Your task to perform on an android device: Open calendar and show me the second week of next month Image 0: 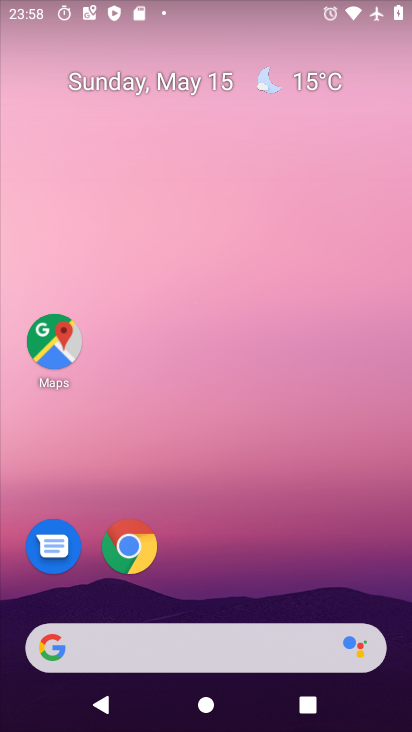
Step 0: drag from (306, 708) to (97, 76)
Your task to perform on an android device: Open calendar and show me the second week of next month Image 1: 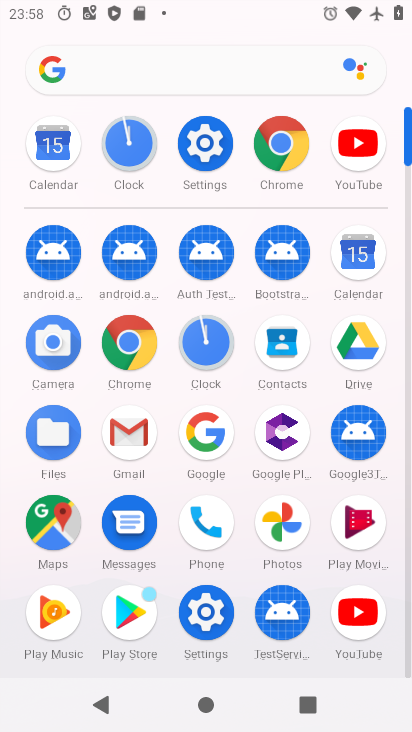
Step 1: click (355, 258)
Your task to perform on an android device: Open calendar and show me the second week of next month Image 2: 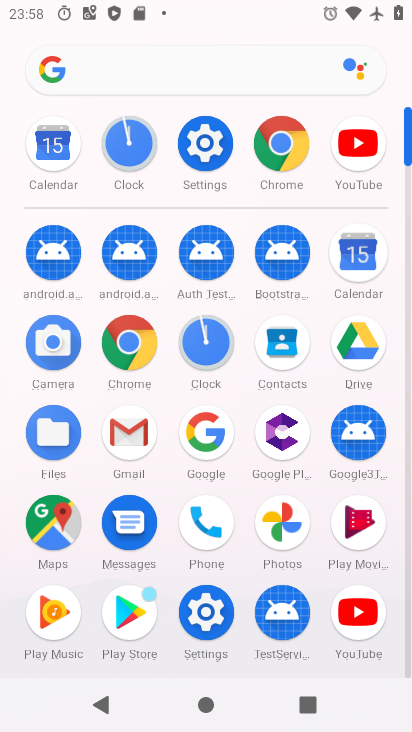
Step 2: click (355, 258)
Your task to perform on an android device: Open calendar and show me the second week of next month Image 3: 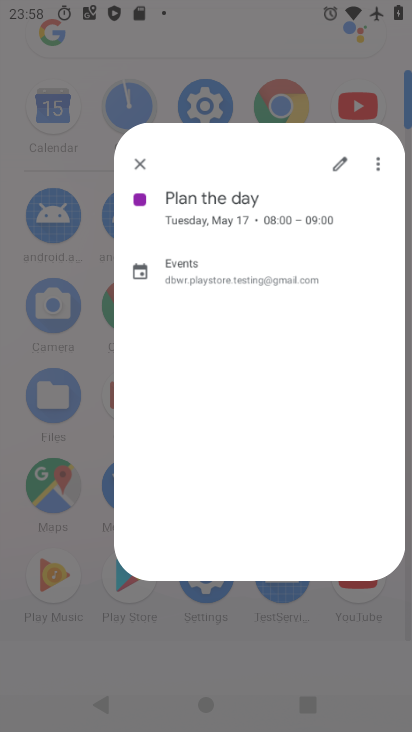
Step 3: click (355, 258)
Your task to perform on an android device: Open calendar and show me the second week of next month Image 4: 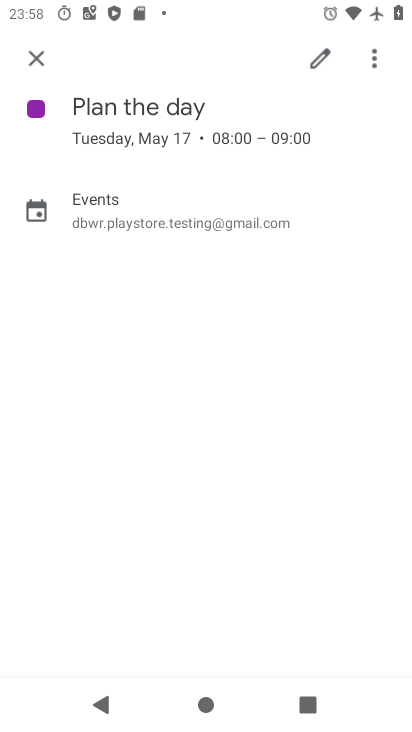
Step 4: click (358, 259)
Your task to perform on an android device: Open calendar and show me the second week of next month Image 5: 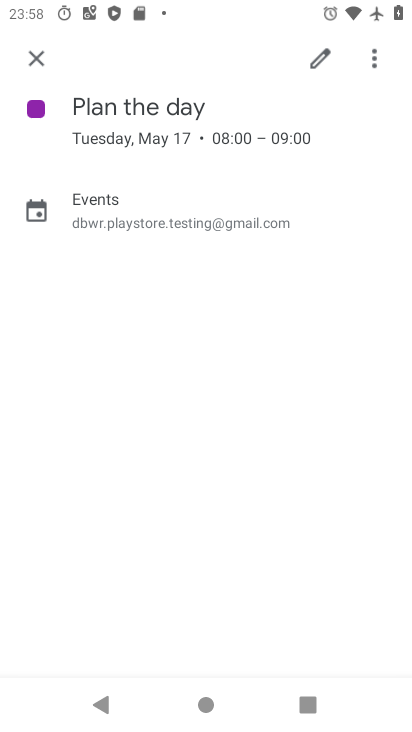
Step 5: click (33, 56)
Your task to perform on an android device: Open calendar and show me the second week of next month Image 6: 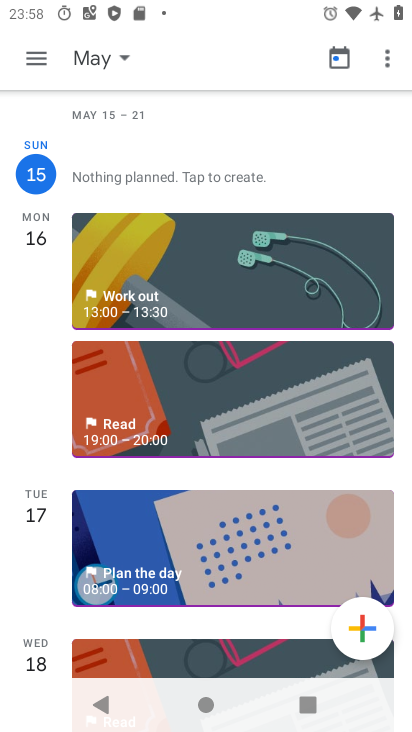
Step 6: click (123, 59)
Your task to perform on an android device: Open calendar and show me the second week of next month Image 7: 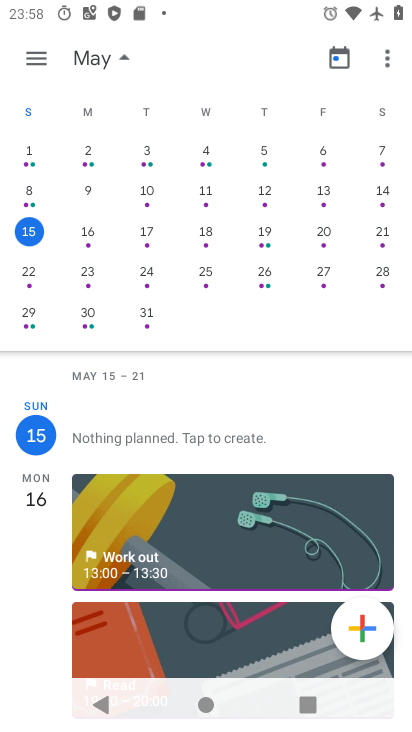
Step 7: click (144, 188)
Your task to perform on an android device: Open calendar and show me the second week of next month Image 8: 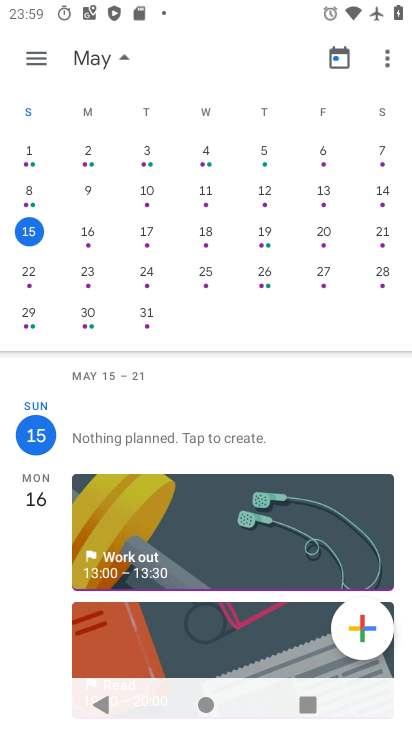
Step 8: click (146, 189)
Your task to perform on an android device: Open calendar and show me the second week of next month Image 9: 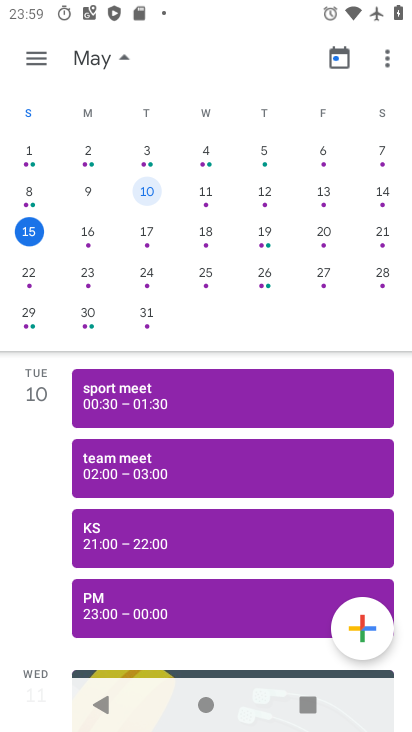
Step 9: click (148, 190)
Your task to perform on an android device: Open calendar and show me the second week of next month Image 10: 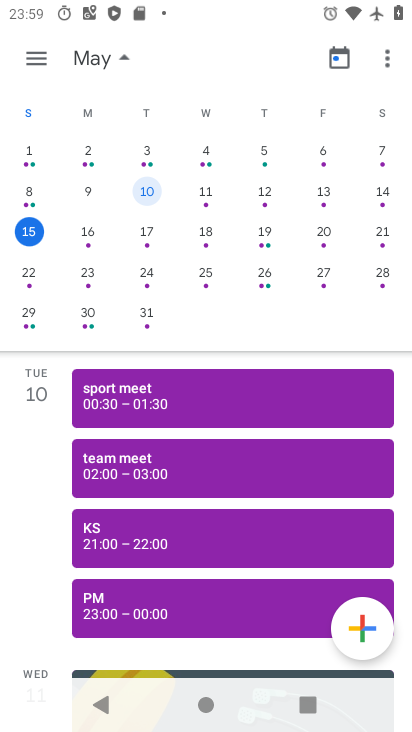
Step 10: click (148, 190)
Your task to perform on an android device: Open calendar and show me the second week of next month Image 11: 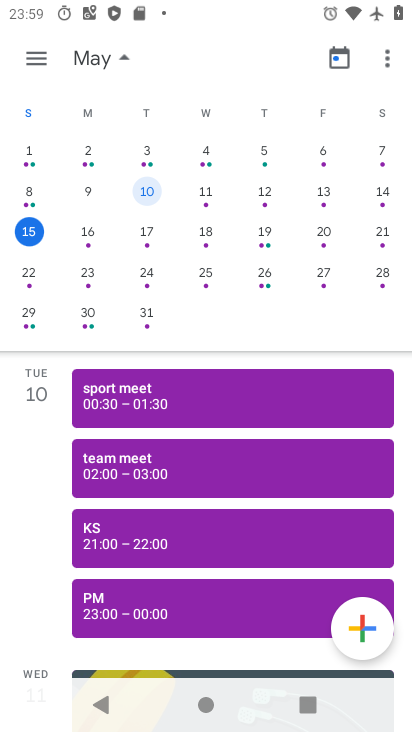
Step 11: click (148, 190)
Your task to perform on an android device: Open calendar and show me the second week of next month Image 12: 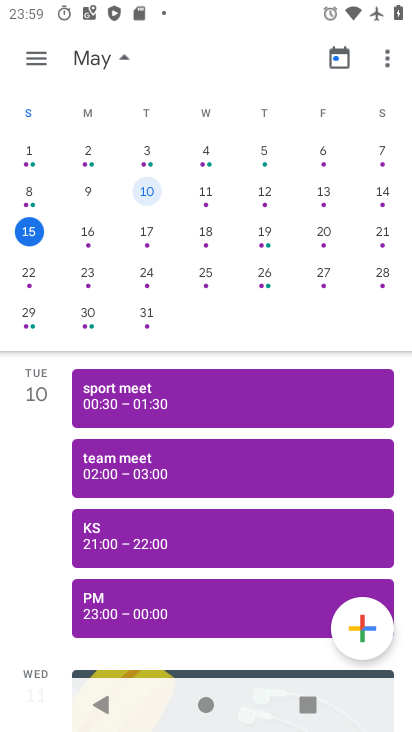
Step 12: click (123, 57)
Your task to perform on an android device: Open calendar and show me the second week of next month Image 13: 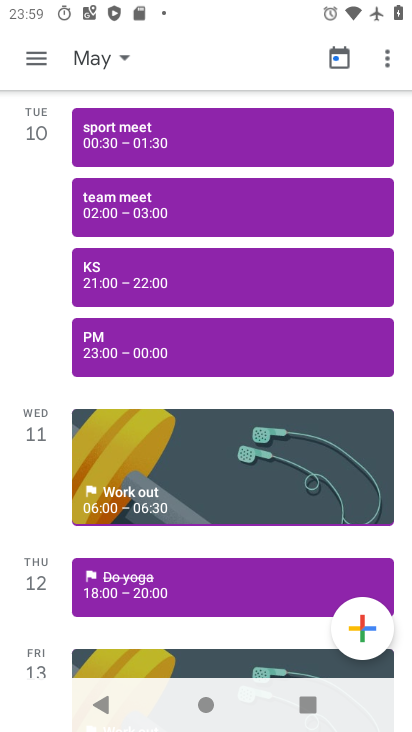
Step 13: click (175, 158)
Your task to perform on an android device: Open calendar and show me the second week of next month Image 14: 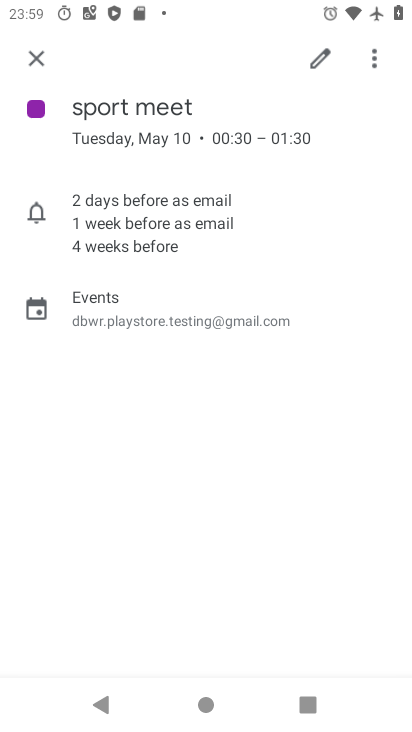
Step 14: click (31, 48)
Your task to perform on an android device: Open calendar and show me the second week of next month Image 15: 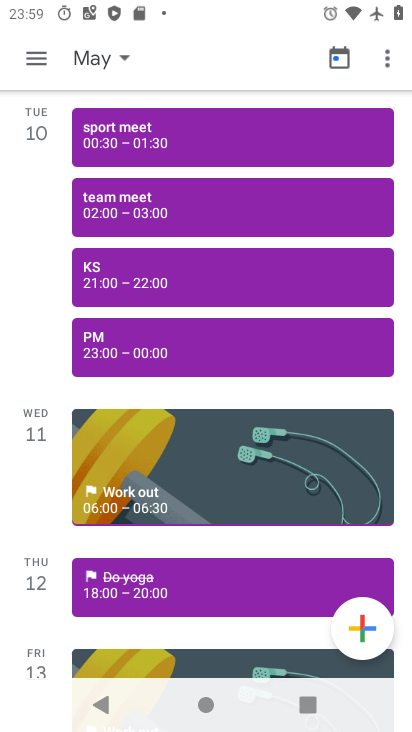
Step 15: click (122, 59)
Your task to perform on an android device: Open calendar and show me the second week of next month Image 16: 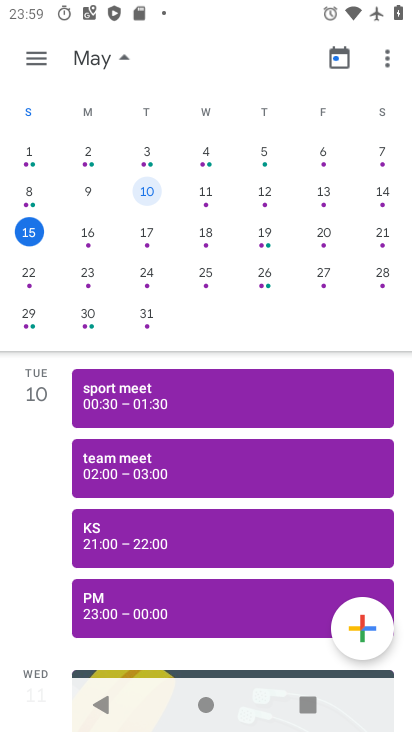
Step 16: drag from (229, 190) to (83, 214)
Your task to perform on an android device: Open calendar and show me the second week of next month Image 17: 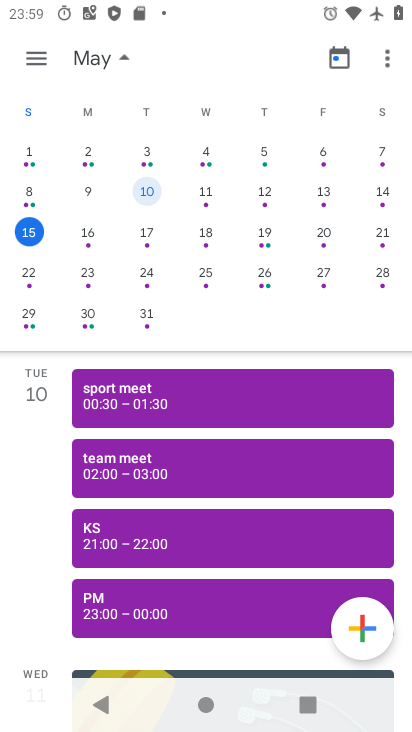
Step 17: drag from (262, 238) to (14, 226)
Your task to perform on an android device: Open calendar and show me the second week of next month Image 18: 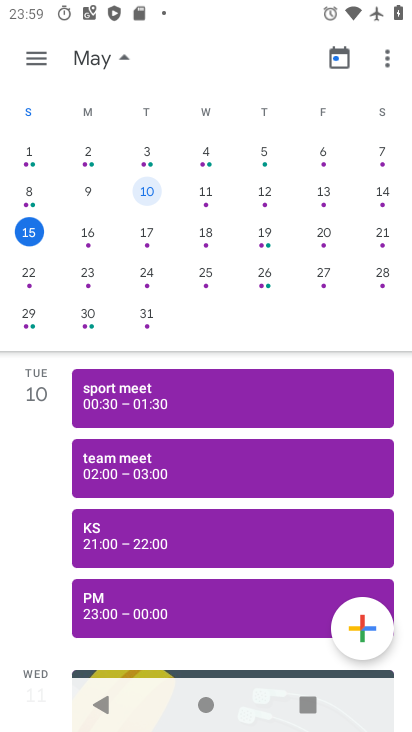
Step 18: drag from (172, 237) to (44, 303)
Your task to perform on an android device: Open calendar and show me the second week of next month Image 19: 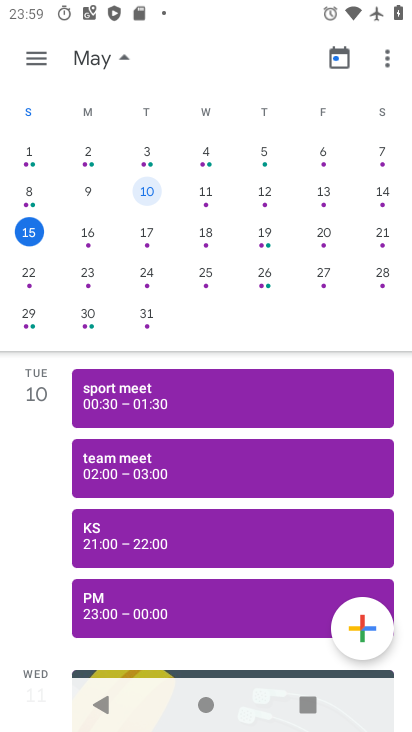
Step 19: drag from (301, 188) to (38, 241)
Your task to perform on an android device: Open calendar and show me the second week of next month Image 20: 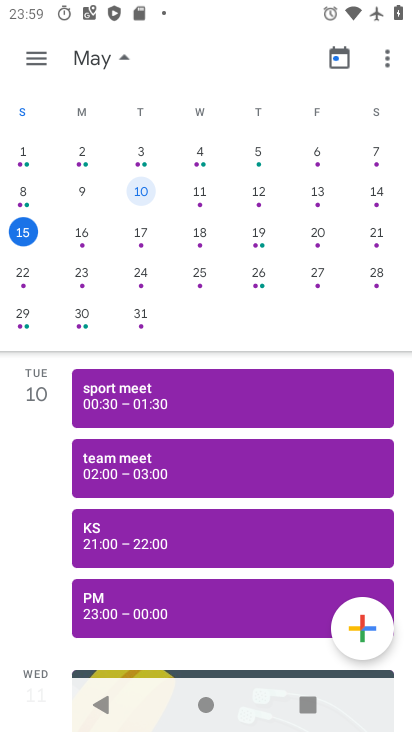
Step 20: drag from (325, 219) to (0, 283)
Your task to perform on an android device: Open calendar and show me the second week of next month Image 21: 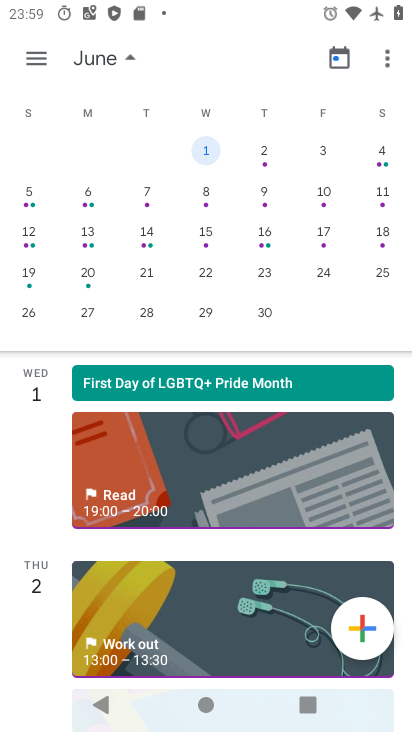
Step 21: drag from (196, 240) to (82, 260)
Your task to perform on an android device: Open calendar and show me the second week of next month Image 22: 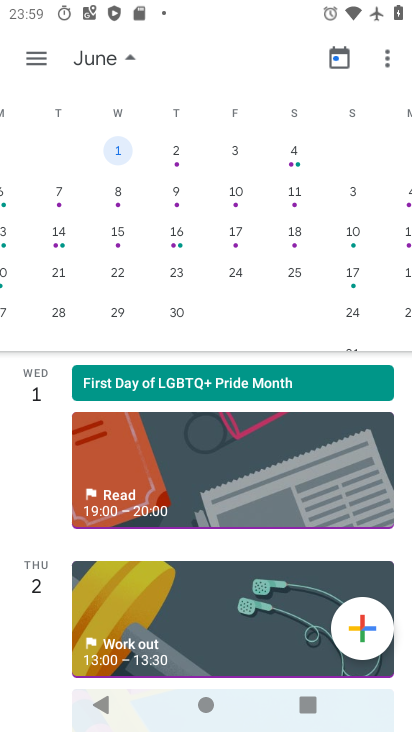
Step 22: drag from (226, 219) to (8, 257)
Your task to perform on an android device: Open calendar and show me the second week of next month Image 23: 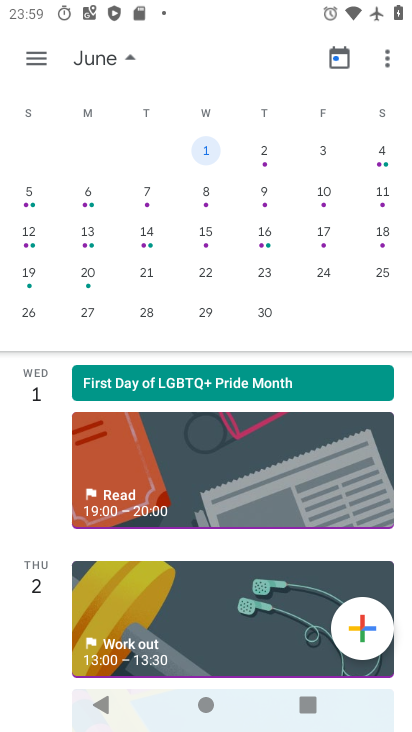
Step 23: click (203, 200)
Your task to perform on an android device: Open calendar and show me the second week of next month Image 24: 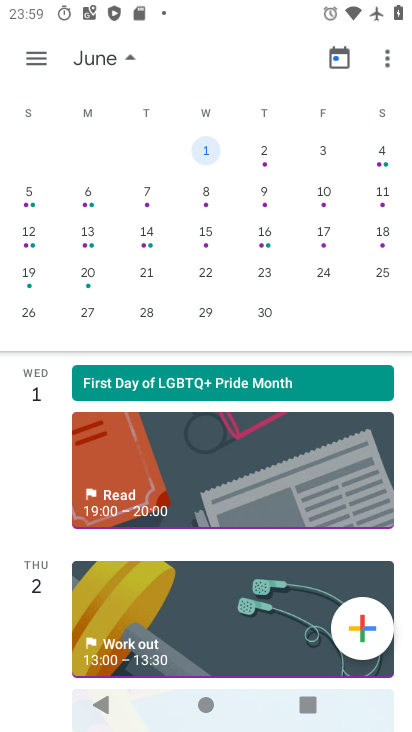
Step 24: click (203, 194)
Your task to perform on an android device: Open calendar and show me the second week of next month Image 25: 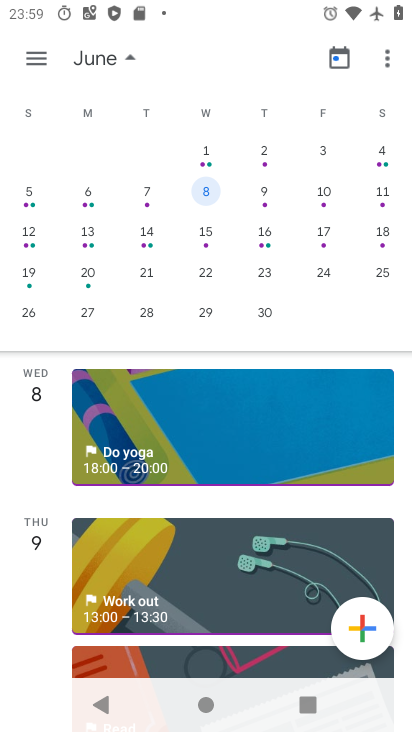
Step 25: click (202, 193)
Your task to perform on an android device: Open calendar and show me the second week of next month Image 26: 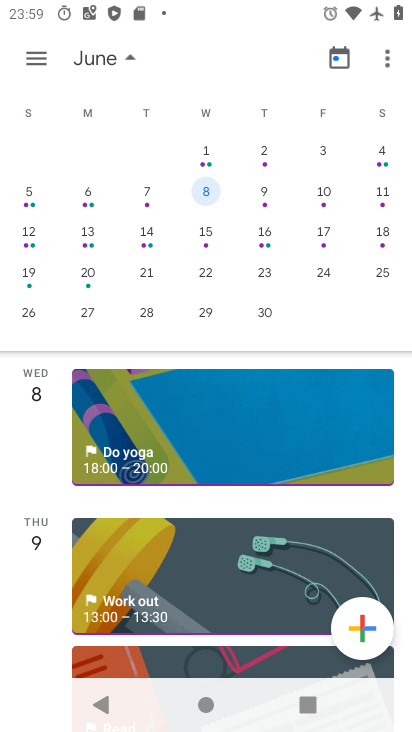
Step 26: click (202, 193)
Your task to perform on an android device: Open calendar and show me the second week of next month Image 27: 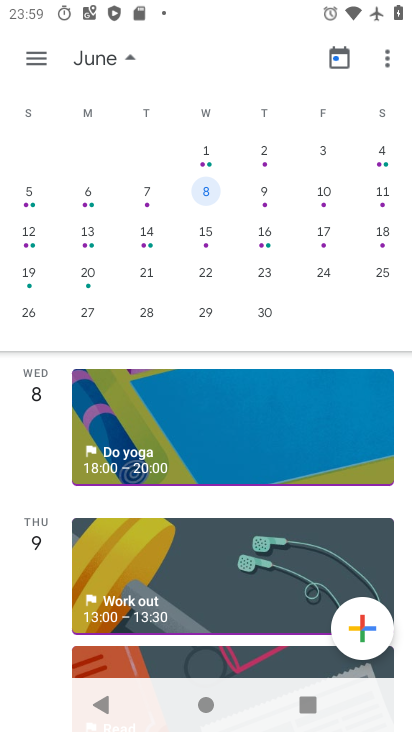
Step 27: task complete